Your task to perform on an android device: Check the weather Image 0: 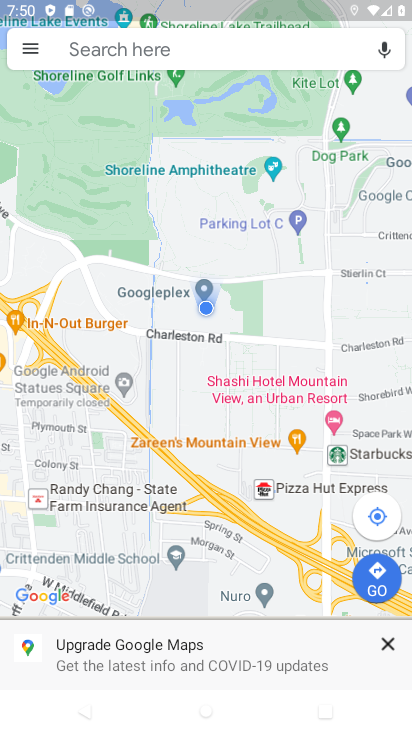
Step 0: press home button
Your task to perform on an android device: Check the weather Image 1: 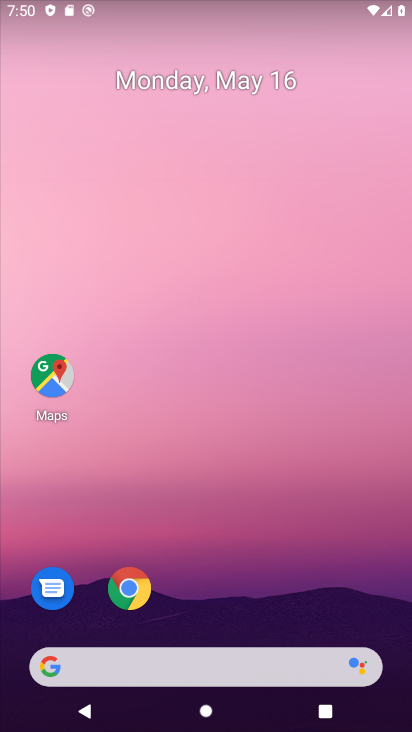
Step 1: click (256, 667)
Your task to perform on an android device: Check the weather Image 2: 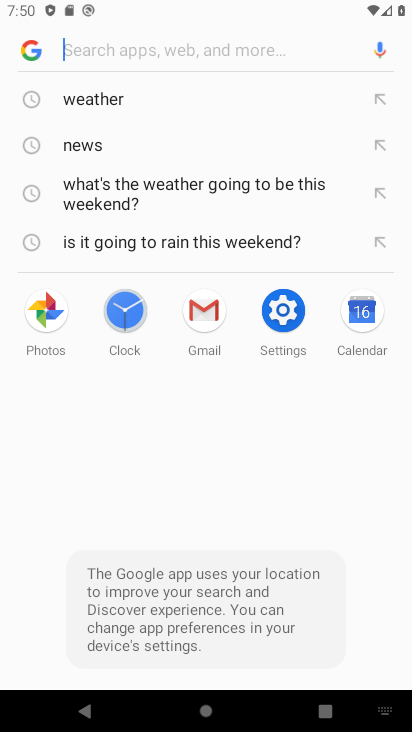
Step 2: click (124, 107)
Your task to perform on an android device: Check the weather Image 3: 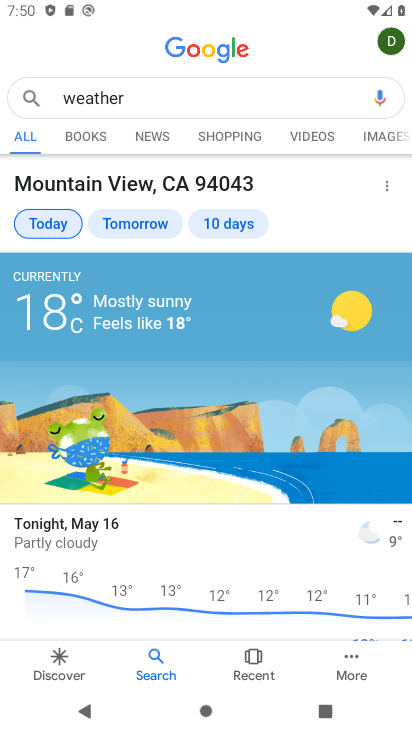
Step 3: task complete